Your task to perform on an android device: Open calendar and show me the third week of next month Image 0: 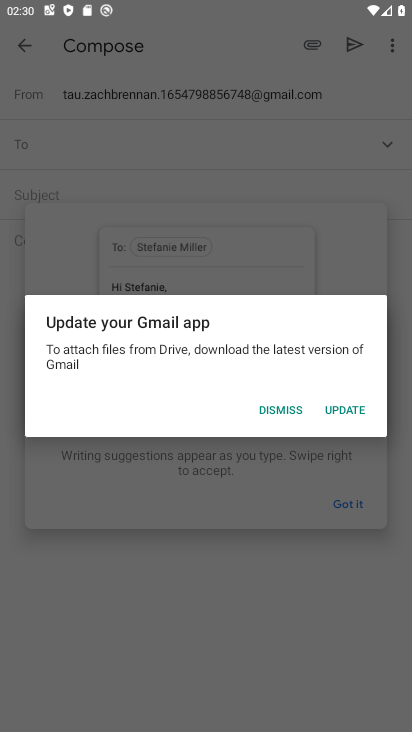
Step 0: press home button
Your task to perform on an android device: Open calendar and show me the third week of next month Image 1: 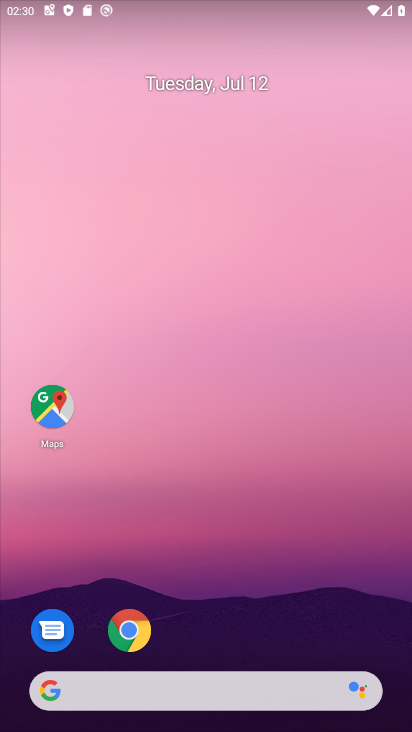
Step 1: drag from (356, 624) to (295, 177)
Your task to perform on an android device: Open calendar and show me the third week of next month Image 2: 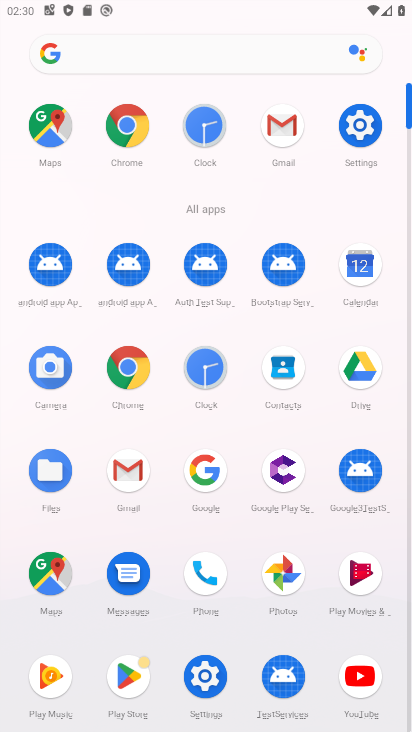
Step 2: click (362, 266)
Your task to perform on an android device: Open calendar and show me the third week of next month Image 3: 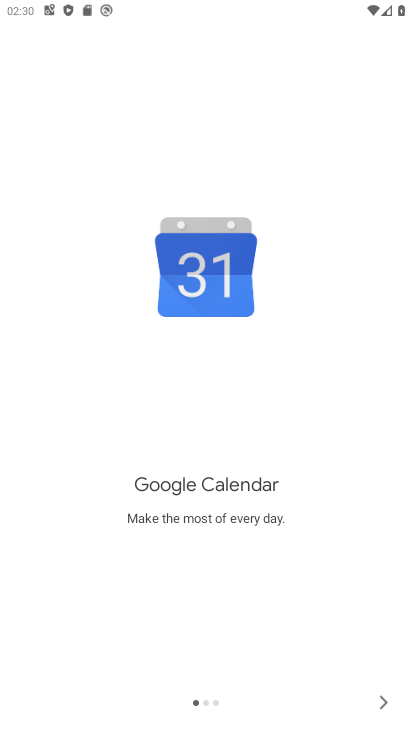
Step 3: click (379, 701)
Your task to perform on an android device: Open calendar and show me the third week of next month Image 4: 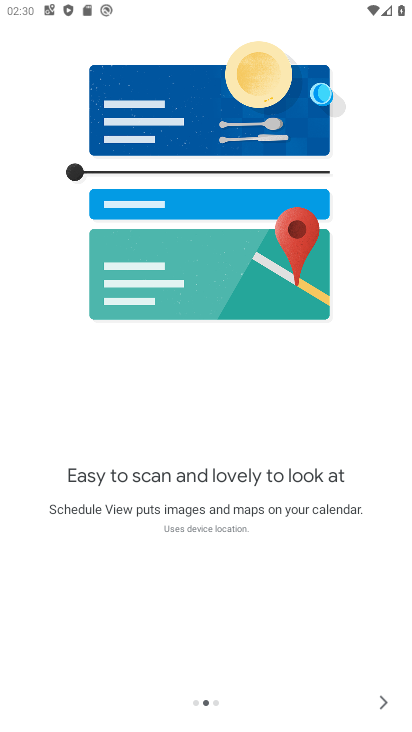
Step 4: click (379, 701)
Your task to perform on an android device: Open calendar and show me the third week of next month Image 5: 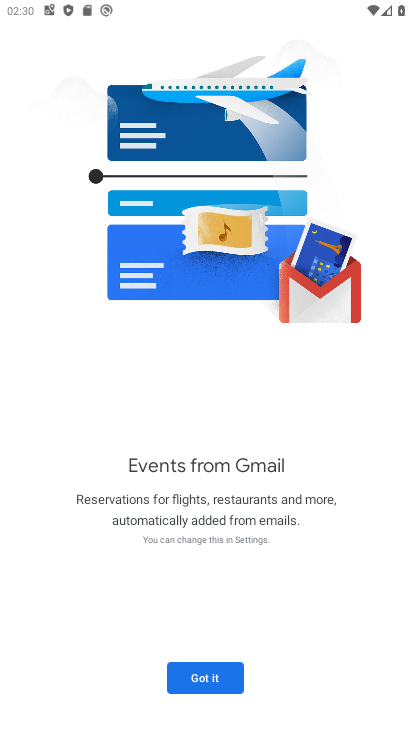
Step 5: click (202, 679)
Your task to perform on an android device: Open calendar and show me the third week of next month Image 6: 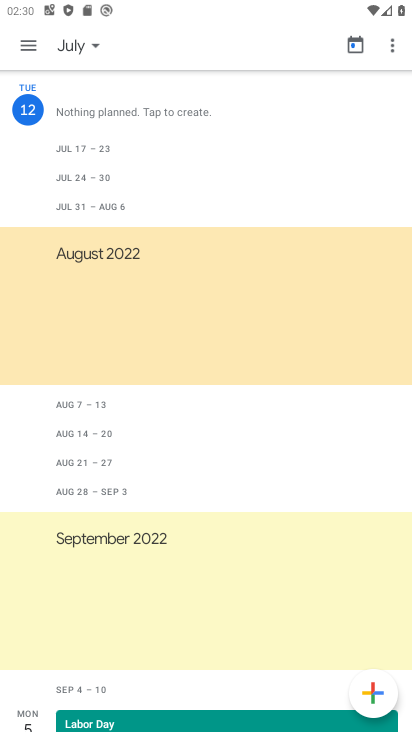
Step 6: click (23, 46)
Your task to perform on an android device: Open calendar and show me the third week of next month Image 7: 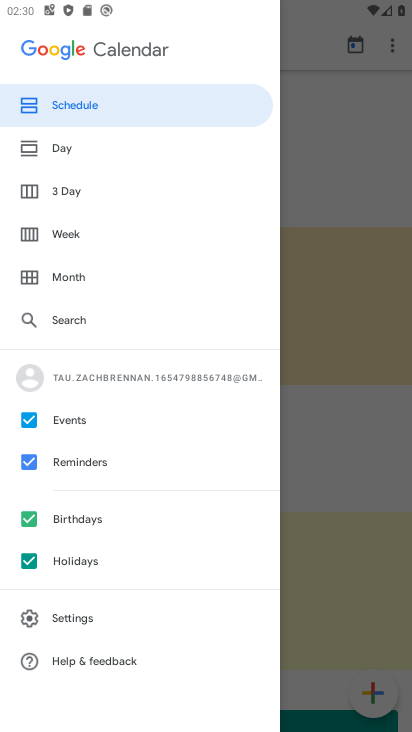
Step 7: click (68, 237)
Your task to perform on an android device: Open calendar and show me the third week of next month Image 8: 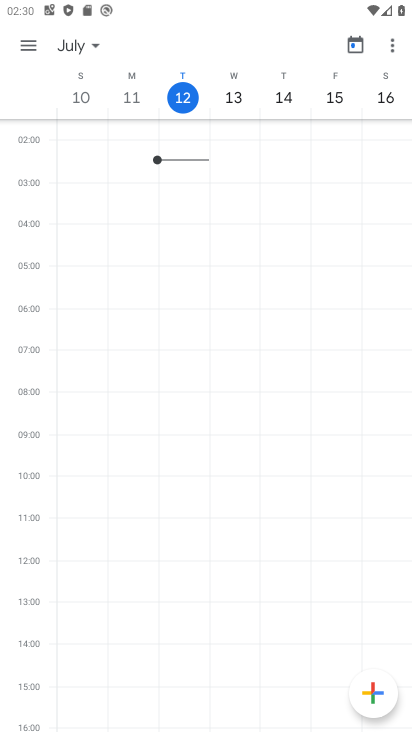
Step 8: click (92, 39)
Your task to perform on an android device: Open calendar and show me the third week of next month Image 9: 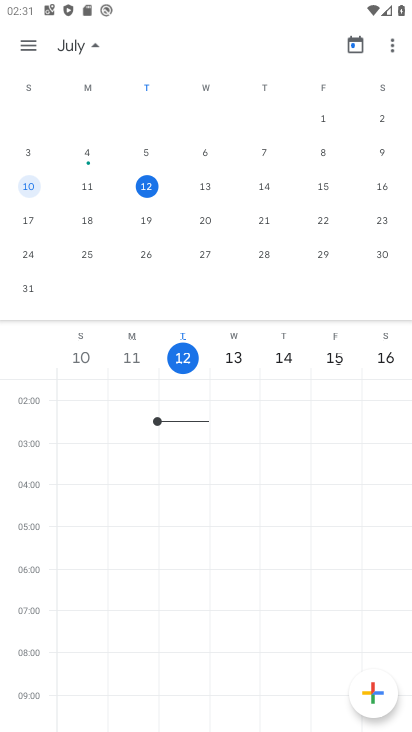
Step 9: drag from (379, 231) to (5, 173)
Your task to perform on an android device: Open calendar and show me the third week of next month Image 10: 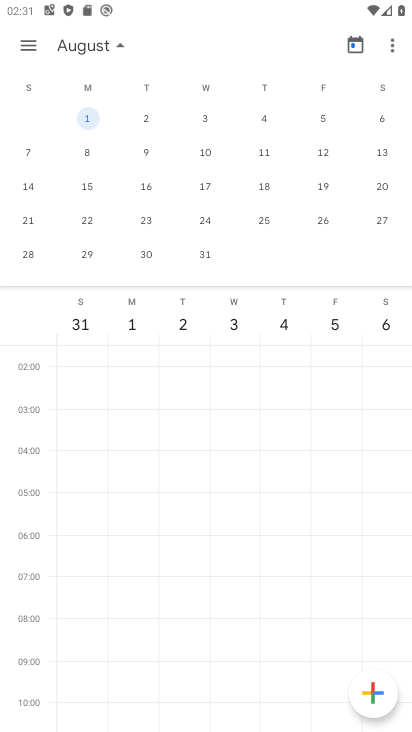
Step 10: click (31, 222)
Your task to perform on an android device: Open calendar and show me the third week of next month Image 11: 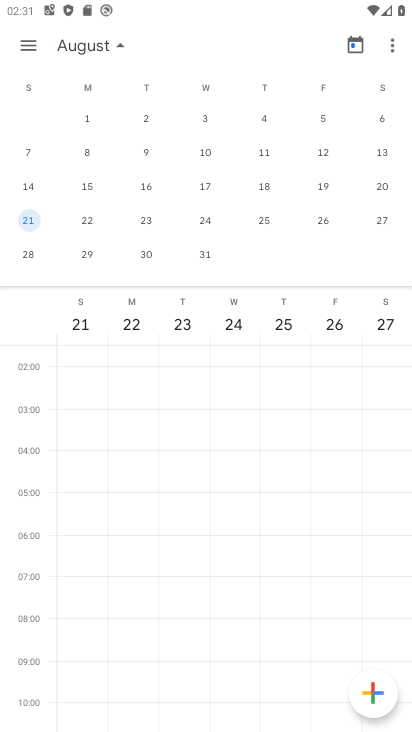
Step 11: task complete